Your task to perform on an android device: When is my next appointment? Image 0: 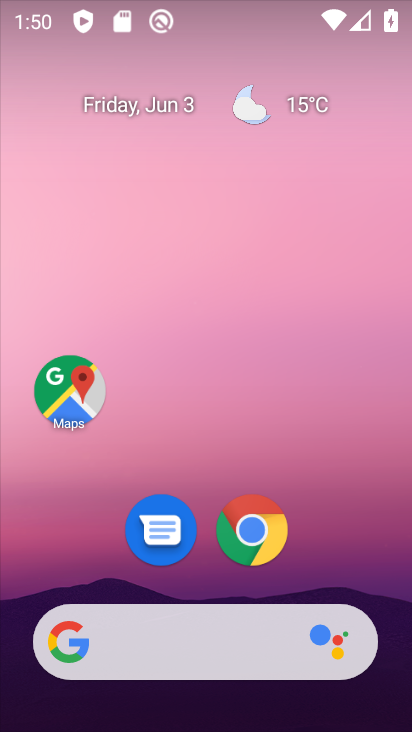
Step 0: press home button
Your task to perform on an android device: When is my next appointment? Image 1: 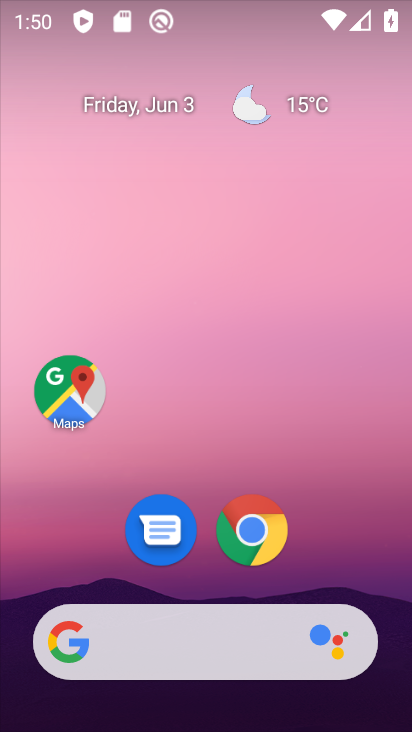
Step 1: drag from (204, 574) to (214, 115)
Your task to perform on an android device: When is my next appointment? Image 2: 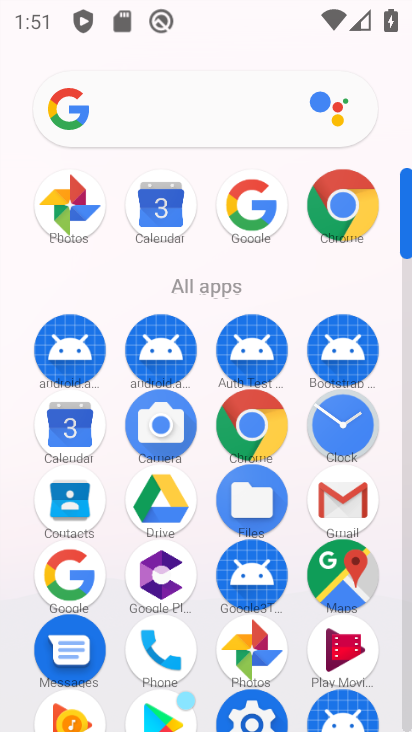
Step 2: drag from (207, 650) to (191, 401)
Your task to perform on an android device: When is my next appointment? Image 3: 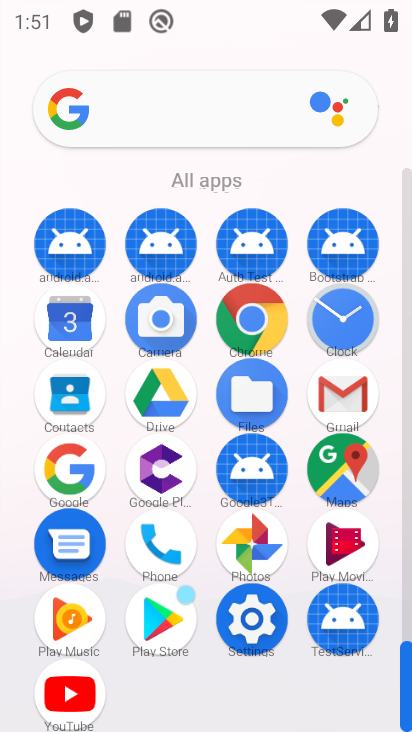
Step 3: drag from (214, 325) to (187, 667)
Your task to perform on an android device: When is my next appointment? Image 4: 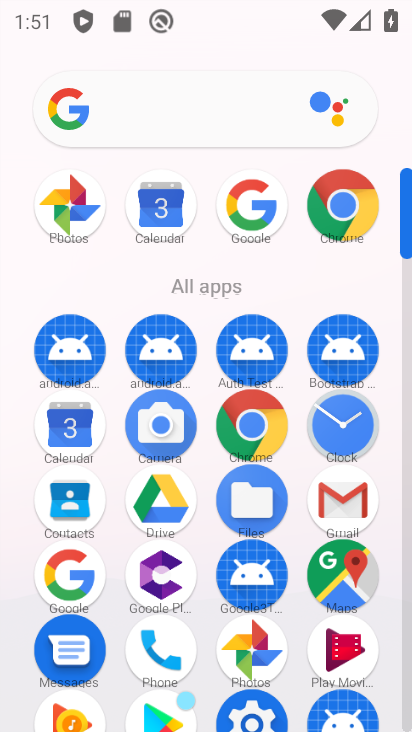
Step 4: drag from (198, 645) to (181, 564)
Your task to perform on an android device: When is my next appointment? Image 5: 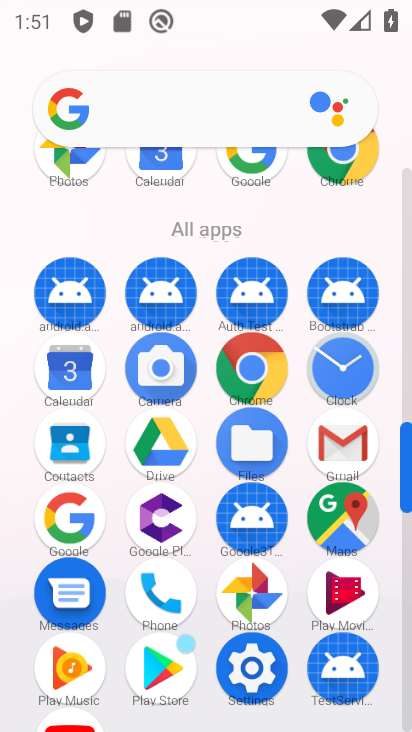
Step 5: click (68, 386)
Your task to perform on an android device: When is my next appointment? Image 6: 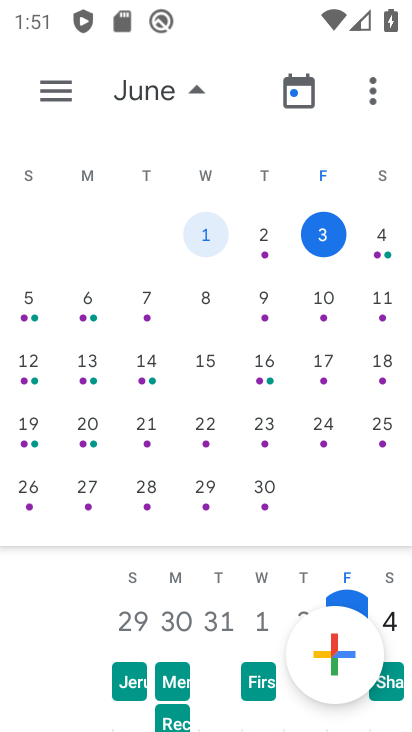
Step 6: click (38, 87)
Your task to perform on an android device: When is my next appointment? Image 7: 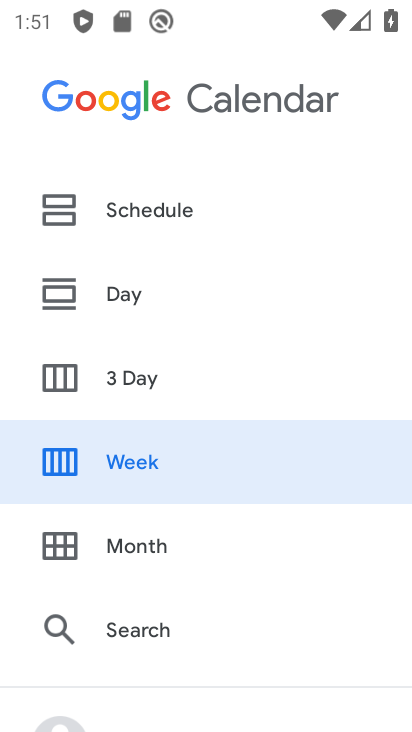
Step 7: click (140, 228)
Your task to perform on an android device: When is my next appointment? Image 8: 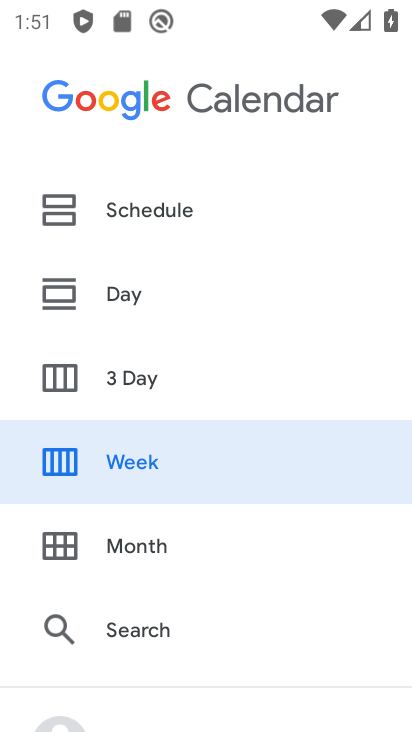
Step 8: click (155, 206)
Your task to perform on an android device: When is my next appointment? Image 9: 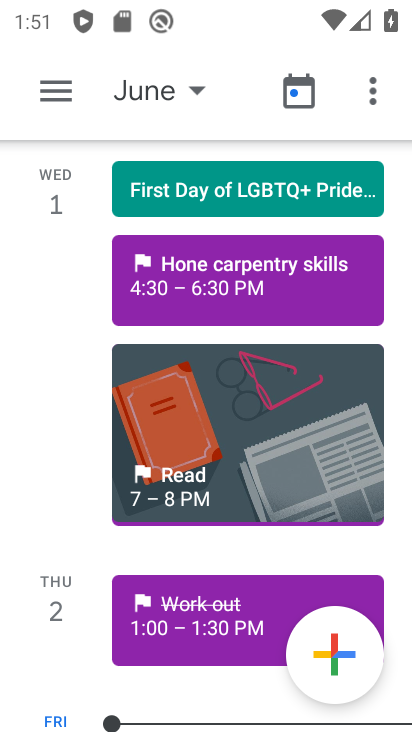
Step 9: task complete